Your task to perform on an android device: Open eBay Image 0: 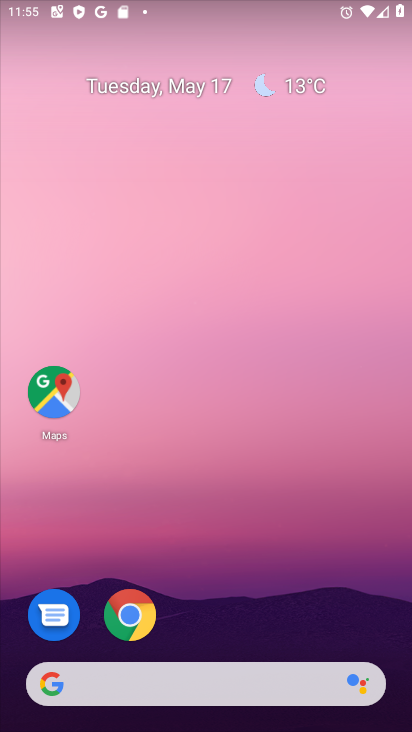
Step 0: click (140, 617)
Your task to perform on an android device: Open eBay Image 1: 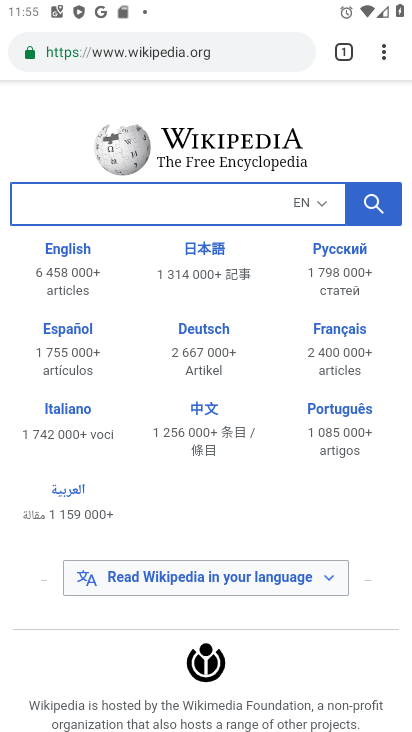
Step 1: click (192, 50)
Your task to perform on an android device: Open eBay Image 2: 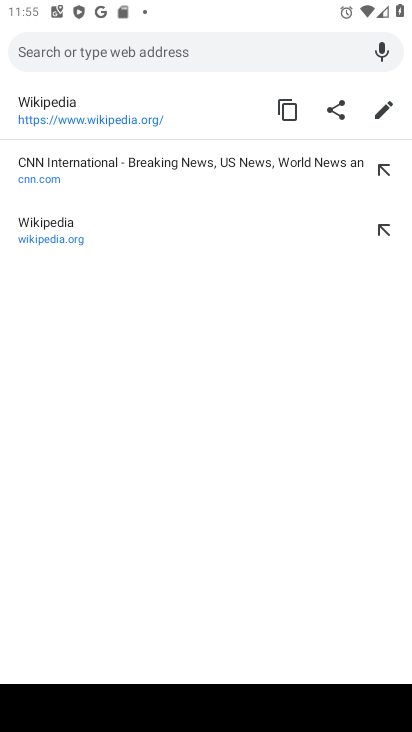
Step 2: type "ebay"
Your task to perform on an android device: Open eBay Image 3: 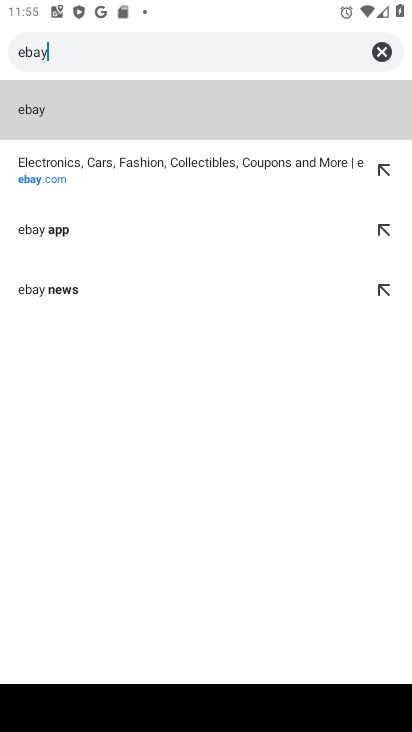
Step 3: click (45, 176)
Your task to perform on an android device: Open eBay Image 4: 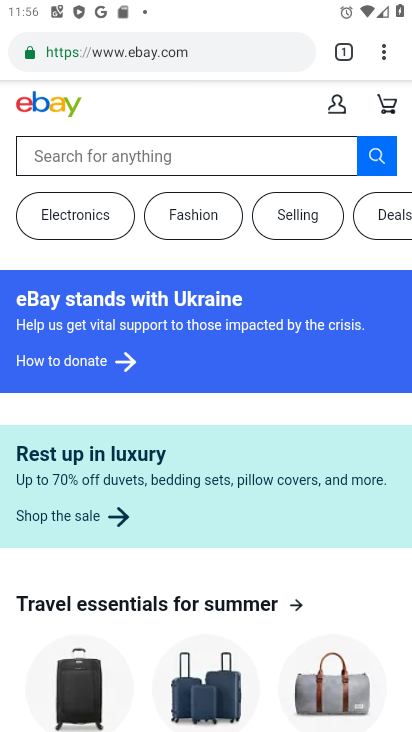
Step 4: task complete